Your task to perform on an android device: turn on translation in the chrome app Image 0: 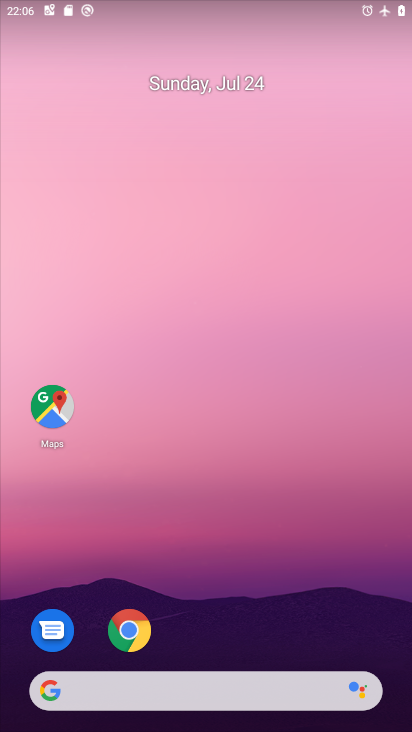
Step 0: drag from (255, 661) to (264, 230)
Your task to perform on an android device: turn on translation in the chrome app Image 1: 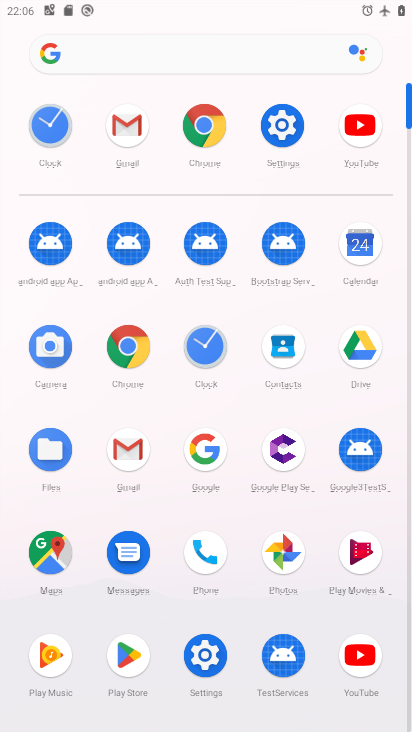
Step 1: click (200, 124)
Your task to perform on an android device: turn on translation in the chrome app Image 2: 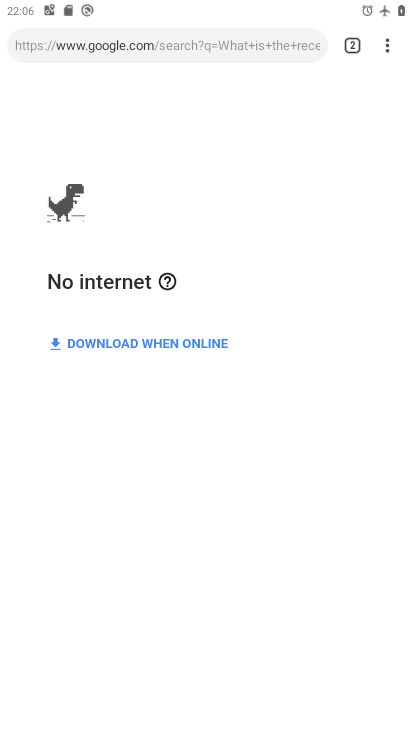
Step 2: click (388, 45)
Your task to perform on an android device: turn on translation in the chrome app Image 3: 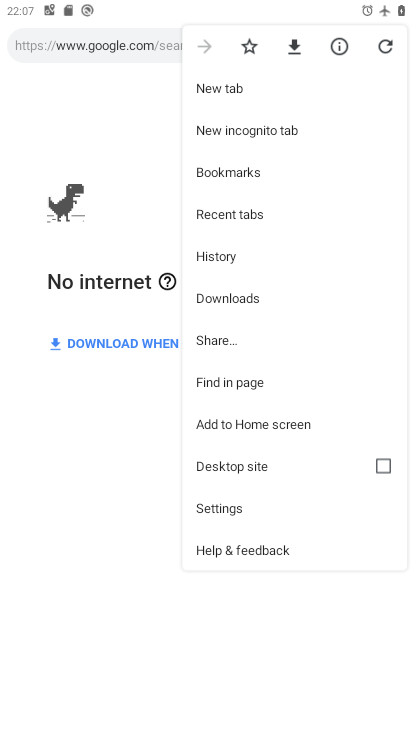
Step 3: click (225, 501)
Your task to perform on an android device: turn on translation in the chrome app Image 4: 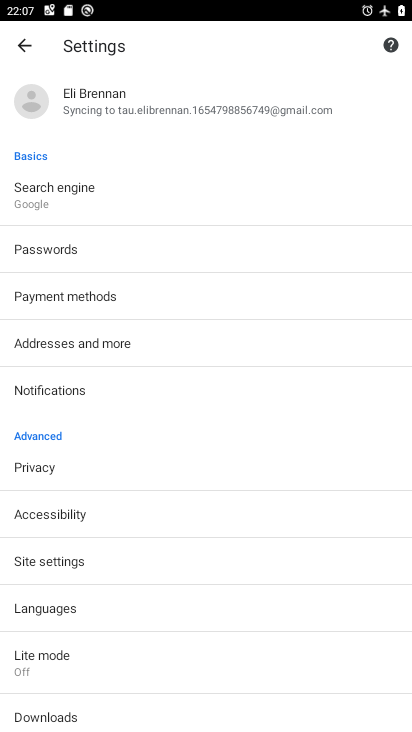
Step 4: click (63, 604)
Your task to perform on an android device: turn on translation in the chrome app Image 5: 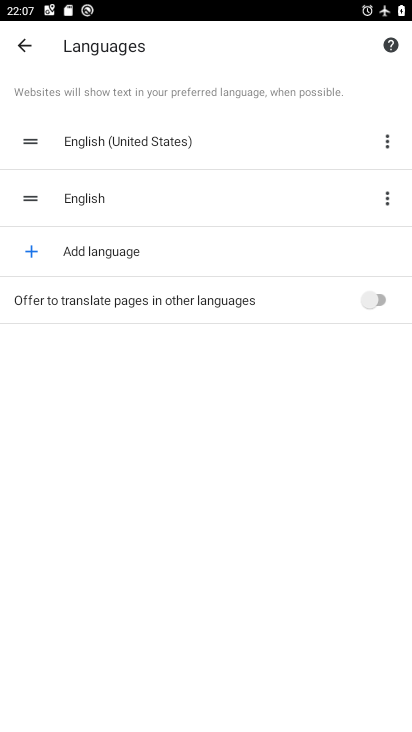
Step 5: click (377, 305)
Your task to perform on an android device: turn on translation in the chrome app Image 6: 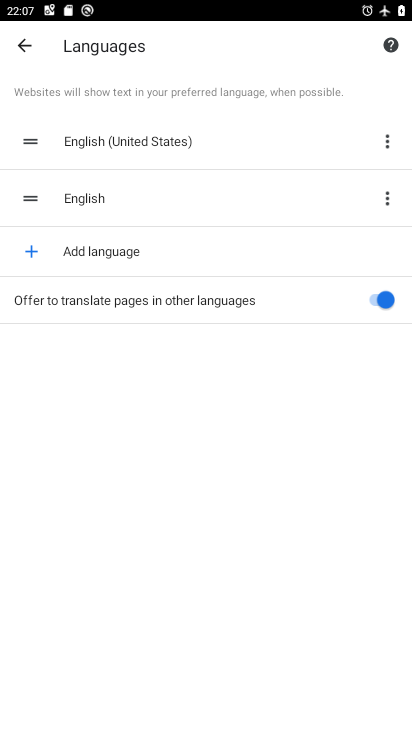
Step 6: task complete